Your task to perform on an android device: Open Reddit.com Image 0: 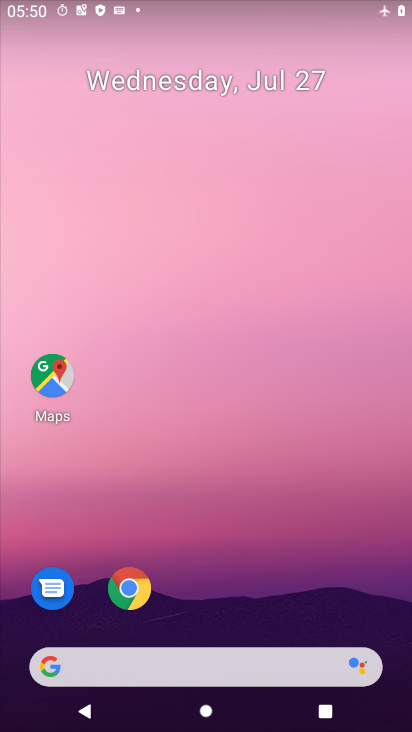
Step 0: drag from (195, 653) to (340, 69)
Your task to perform on an android device: Open Reddit.com Image 1: 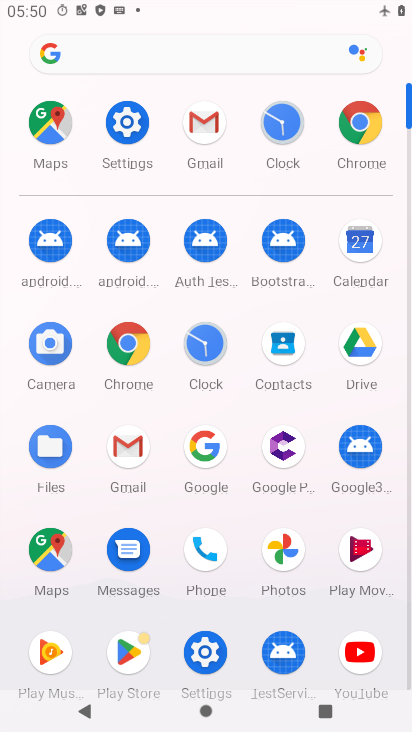
Step 1: click (115, 341)
Your task to perform on an android device: Open Reddit.com Image 2: 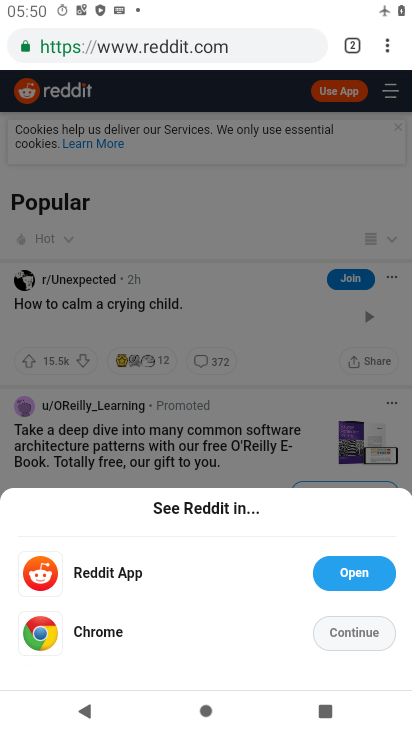
Step 2: task complete